Your task to perform on an android device: open a bookmark in the chrome app Image 0: 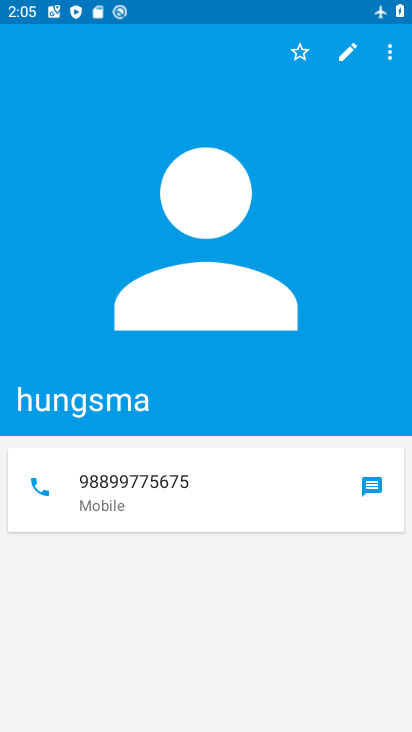
Step 0: press home button
Your task to perform on an android device: open a bookmark in the chrome app Image 1: 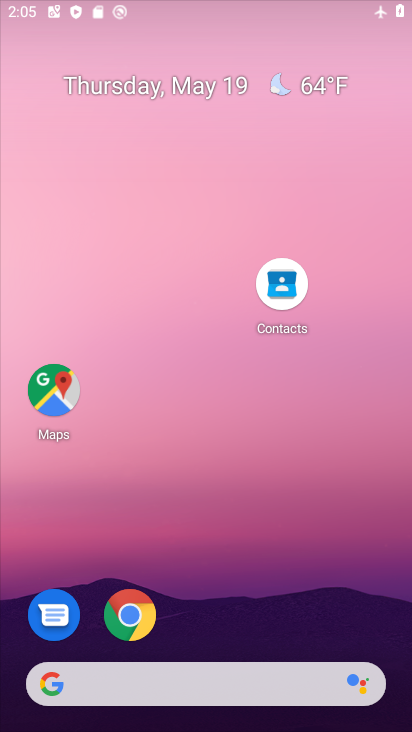
Step 1: drag from (257, 641) to (291, 55)
Your task to perform on an android device: open a bookmark in the chrome app Image 2: 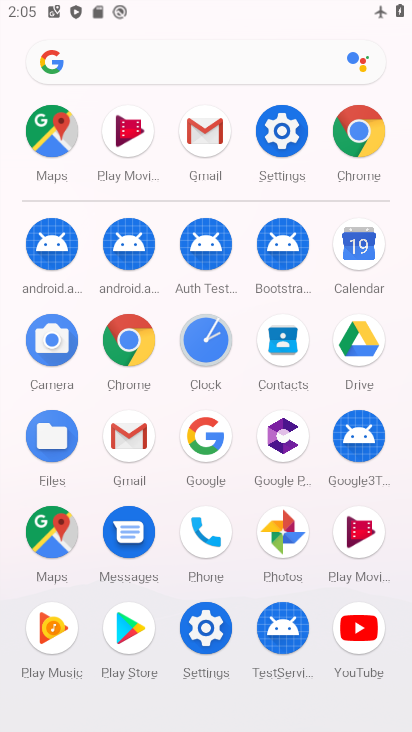
Step 2: click (369, 173)
Your task to perform on an android device: open a bookmark in the chrome app Image 3: 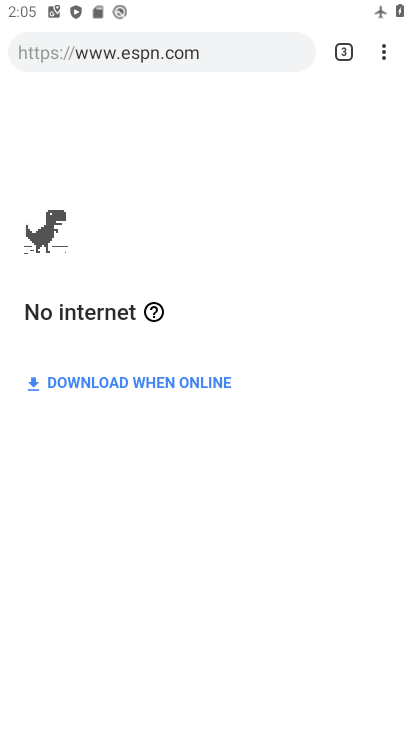
Step 3: click (392, 57)
Your task to perform on an android device: open a bookmark in the chrome app Image 4: 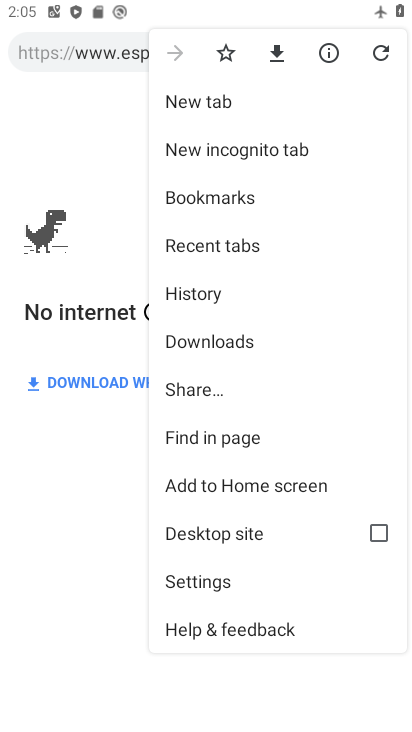
Step 4: click (226, 199)
Your task to perform on an android device: open a bookmark in the chrome app Image 5: 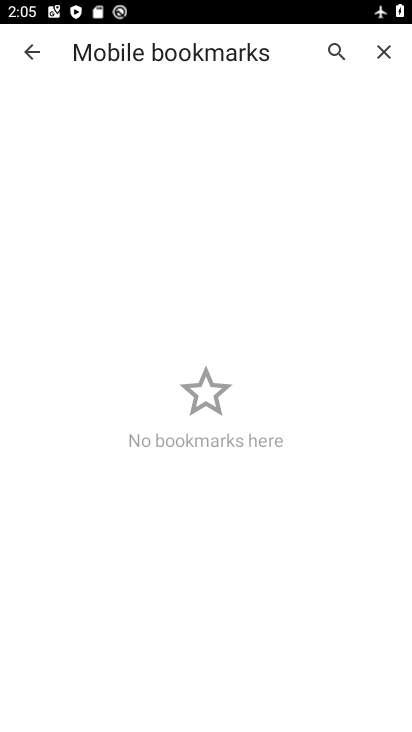
Step 5: task complete